Your task to perform on an android device: find which apps use the phone's location Image 0: 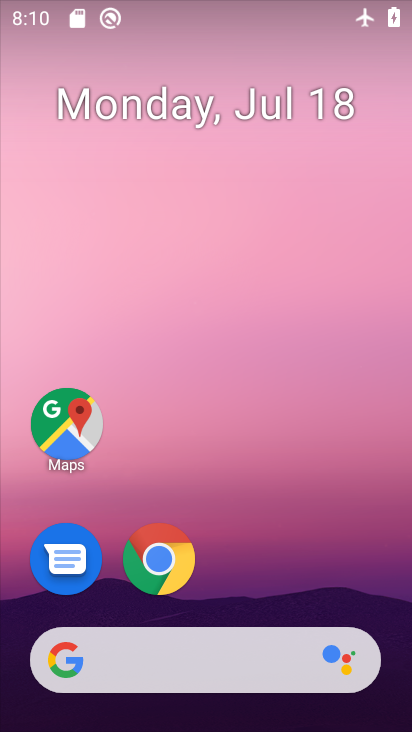
Step 0: drag from (365, 569) to (366, 98)
Your task to perform on an android device: find which apps use the phone's location Image 1: 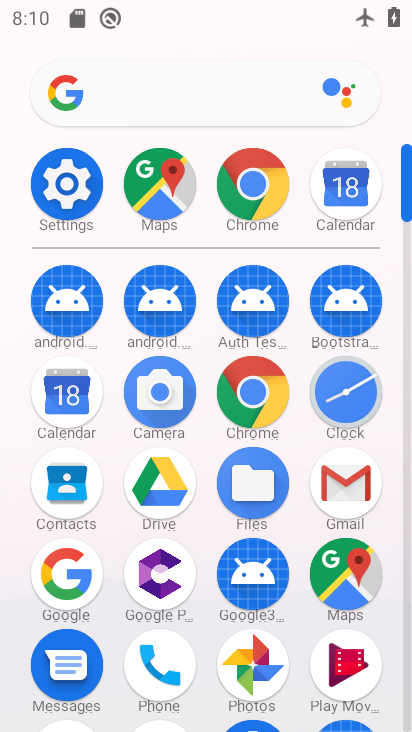
Step 1: click (76, 192)
Your task to perform on an android device: find which apps use the phone's location Image 2: 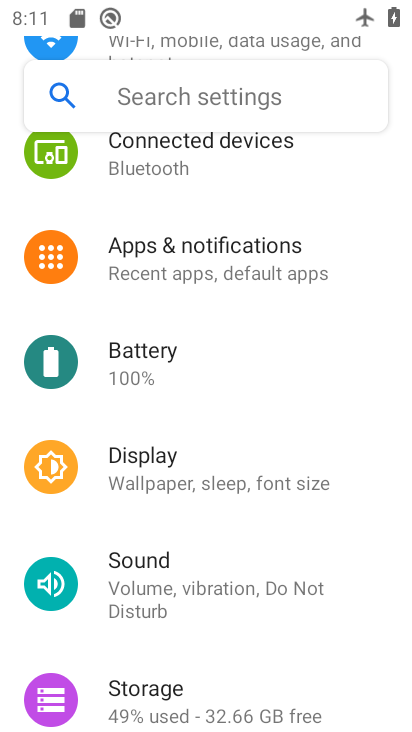
Step 2: drag from (365, 230) to (365, 326)
Your task to perform on an android device: find which apps use the phone's location Image 3: 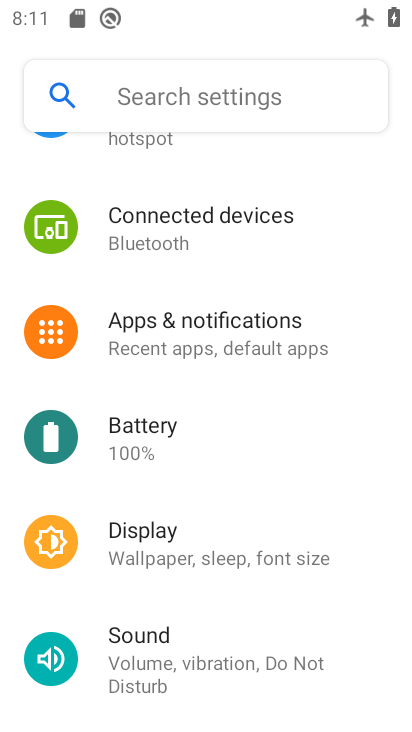
Step 3: drag from (352, 219) to (349, 307)
Your task to perform on an android device: find which apps use the phone's location Image 4: 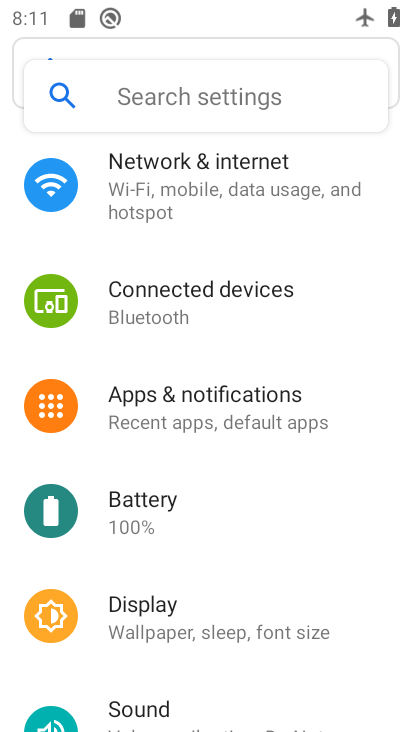
Step 4: drag from (358, 224) to (371, 433)
Your task to perform on an android device: find which apps use the phone's location Image 5: 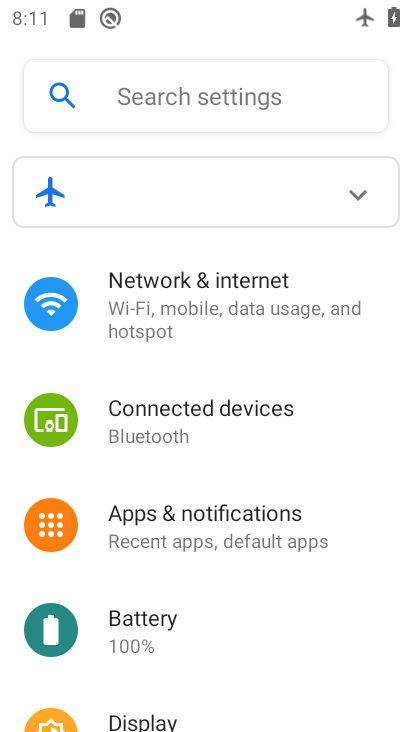
Step 5: drag from (361, 467) to (355, 404)
Your task to perform on an android device: find which apps use the phone's location Image 6: 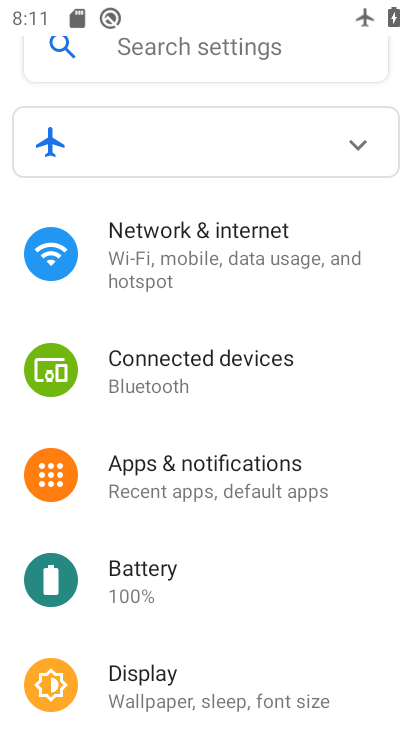
Step 6: drag from (347, 478) to (339, 400)
Your task to perform on an android device: find which apps use the phone's location Image 7: 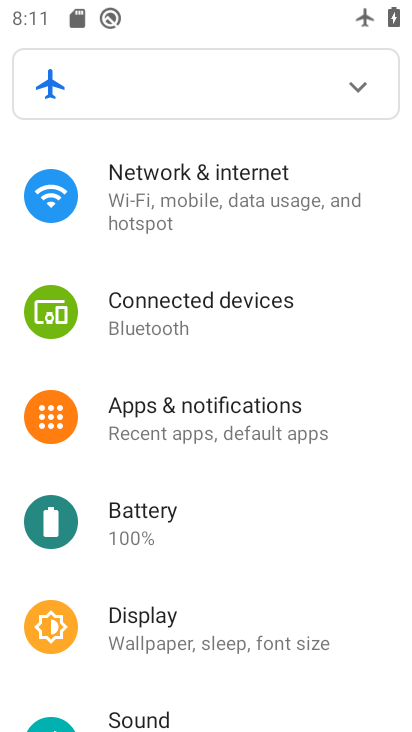
Step 7: drag from (331, 500) to (336, 408)
Your task to perform on an android device: find which apps use the phone's location Image 8: 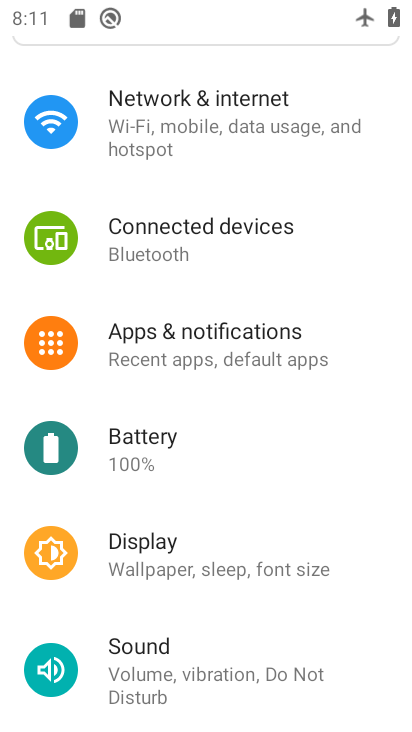
Step 8: drag from (336, 477) to (344, 387)
Your task to perform on an android device: find which apps use the phone's location Image 9: 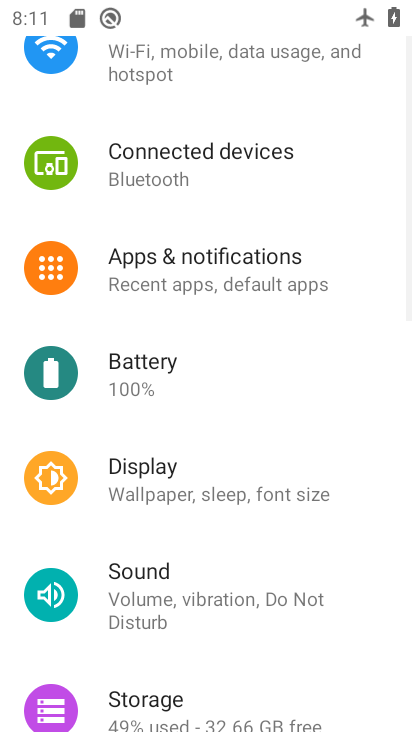
Step 9: drag from (339, 477) to (341, 386)
Your task to perform on an android device: find which apps use the phone's location Image 10: 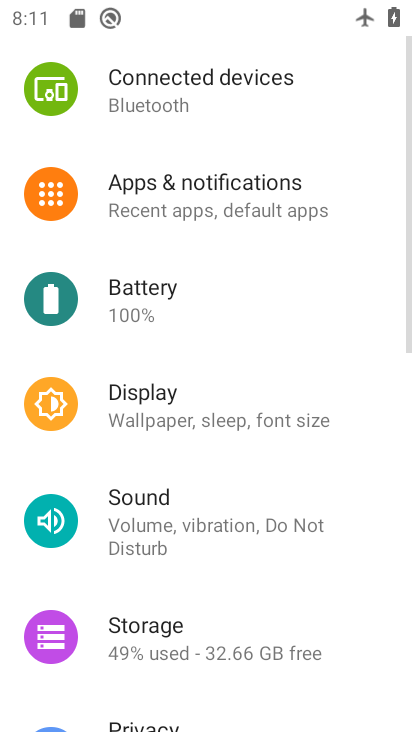
Step 10: drag from (342, 478) to (349, 395)
Your task to perform on an android device: find which apps use the phone's location Image 11: 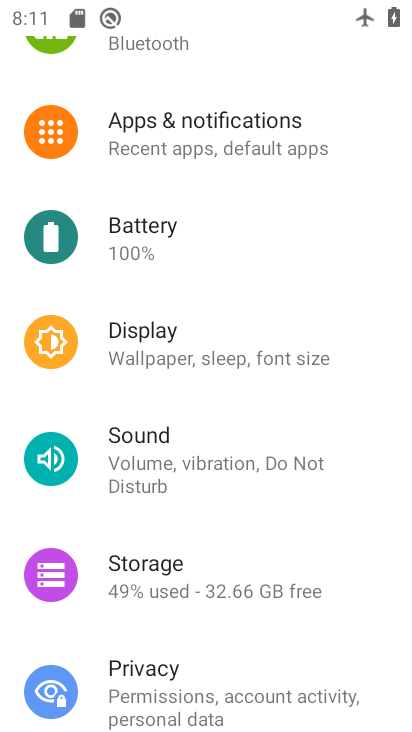
Step 11: drag from (333, 505) to (340, 424)
Your task to perform on an android device: find which apps use the phone's location Image 12: 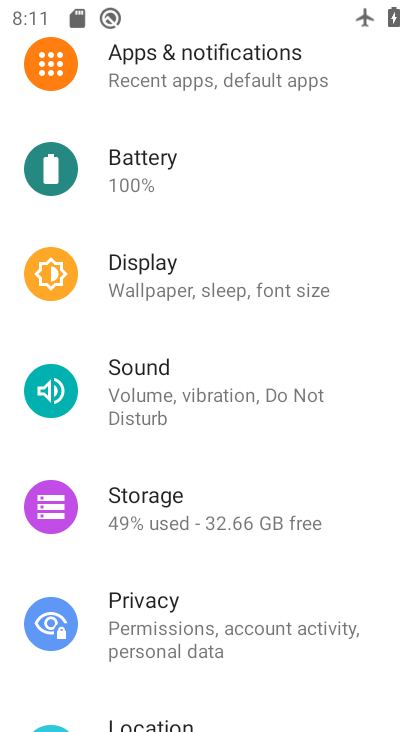
Step 12: drag from (339, 507) to (347, 403)
Your task to perform on an android device: find which apps use the phone's location Image 13: 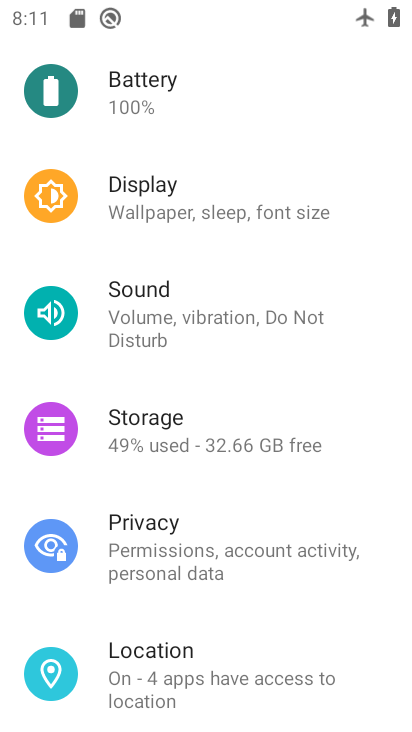
Step 13: drag from (334, 498) to (339, 410)
Your task to perform on an android device: find which apps use the phone's location Image 14: 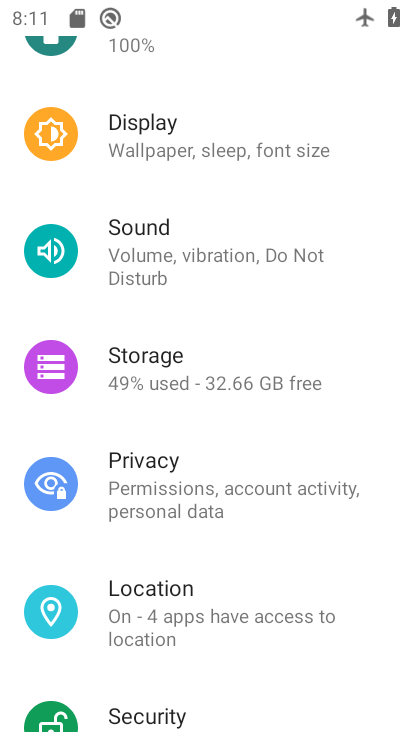
Step 14: drag from (330, 533) to (344, 439)
Your task to perform on an android device: find which apps use the phone's location Image 15: 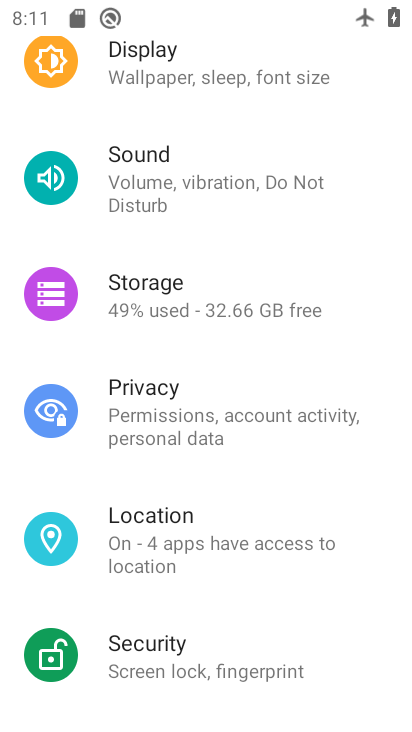
Step 15: drag from (333, 490) to (332, 413)
Your task to perform on an android device: find which apps use the phone's location Image 16: 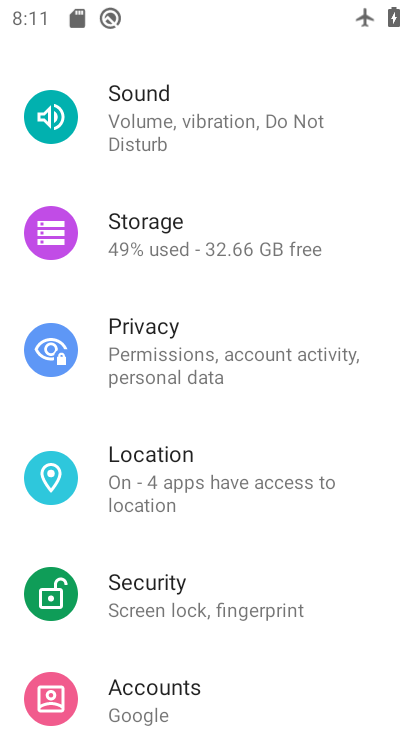
Step 16: drag from (321, 532) to (330, 445)
Your task to perform on an android device: find which apps use the phone's location Image 17: 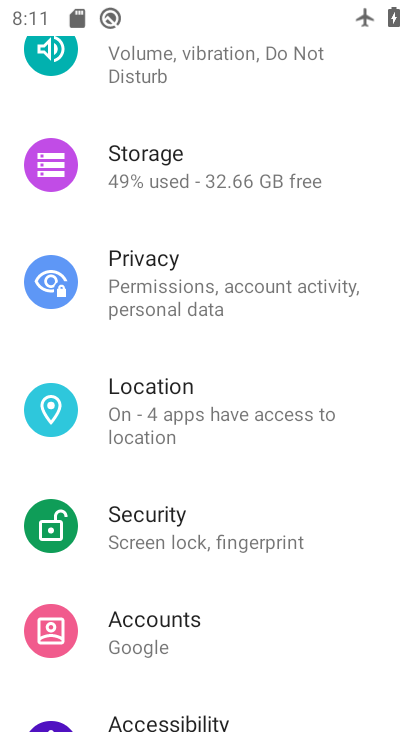
Step 17: click (270, 419)
Your task to perform on an android device: find which apps use the phone's location Image 18: 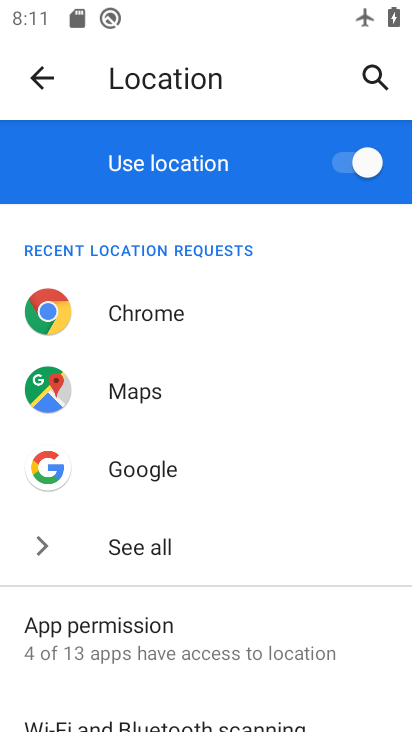
Step 18: drag from (347, 566) to (355, 468)
Your task to perform on an android device: find which apps use the phone's location Image 19: 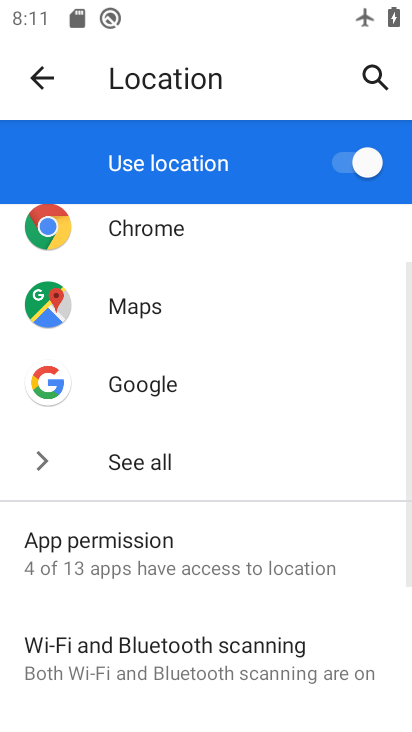
Step 19: drag from (353, 590) to (354, 495)
Your task to perform on an android device: find which apps use the phone's location Image 20: 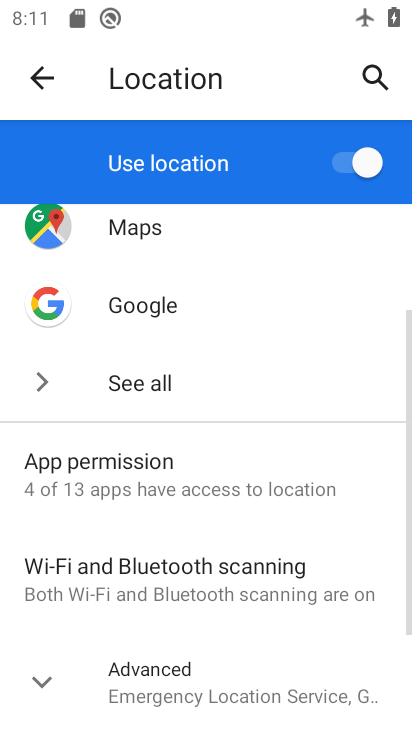
Step 20: click (312, 483)
Your task to perform on an android device: find which apps use the phone's location Image 21: 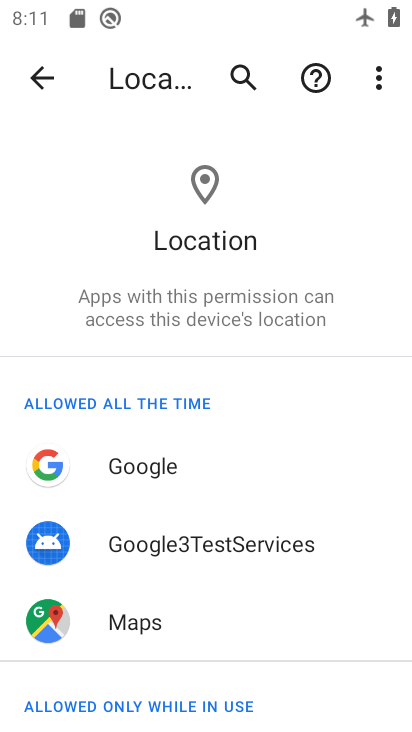
Step 21: drag from (311, 622) to (324, 499)
Your task to perform on an android device: find which apps use the phone's location Image 22: 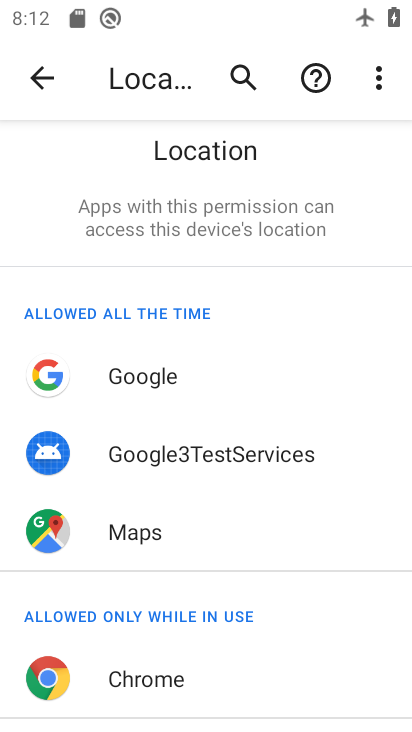
Step 22: drag from (326, 627) to (336, 534)
Your task to perform on an android device: find which apps use the phone's location Image 23: 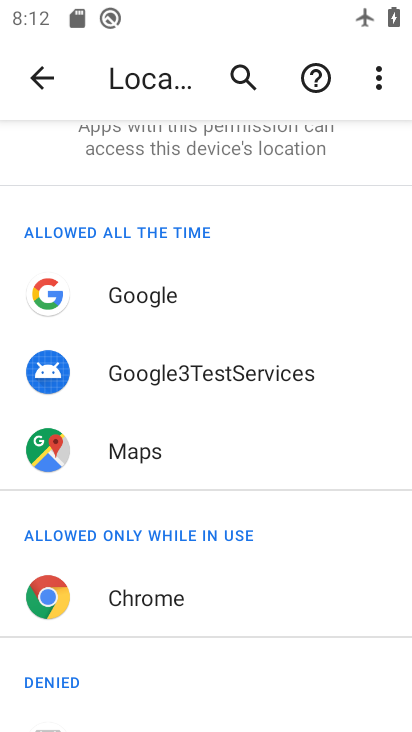
Step 23: drag from (326, 632) to (338, 527)
Your task to perform on an android device: find which apps use the phone's location Image 24: 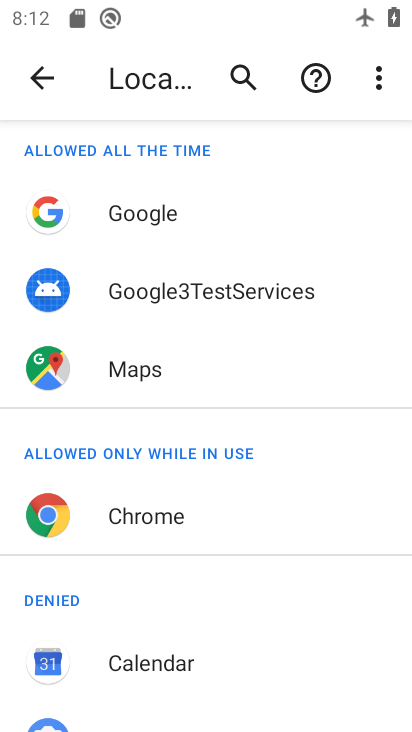
Step 24: drag from (321, 638) to (327, 501)
Your task to perform on an android device: find which apps use the phone's location Image 25: 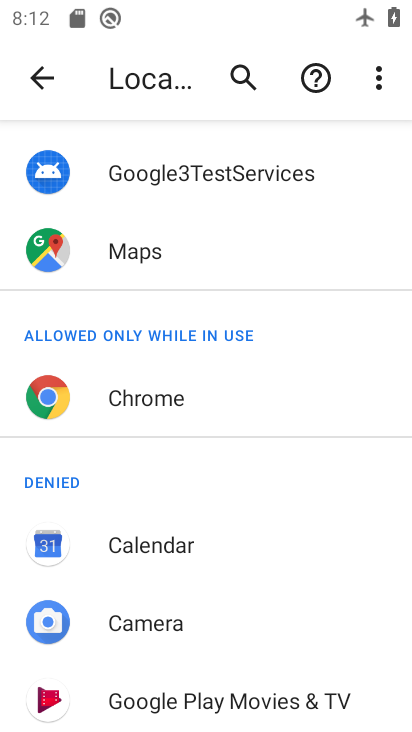
Step 25: drag from (296, 614) to (299, 472)
Your task to perform on an android device: find which apps use the phone's location Image 26: 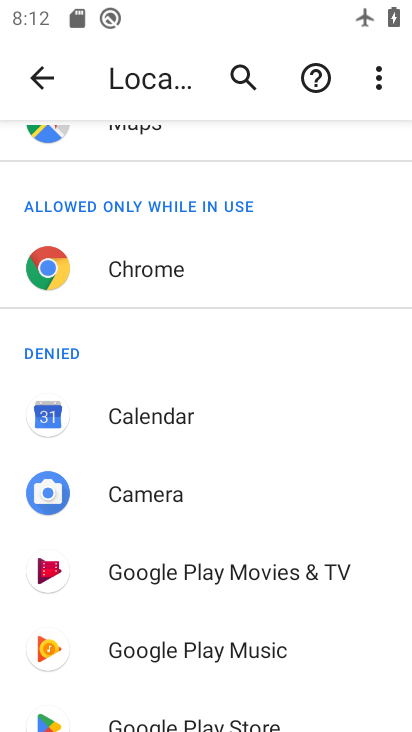
Step 26: drag from (307, 678) to (312, 502)
Your task to perform on an android device: find which apps use the phone's location Image 27: 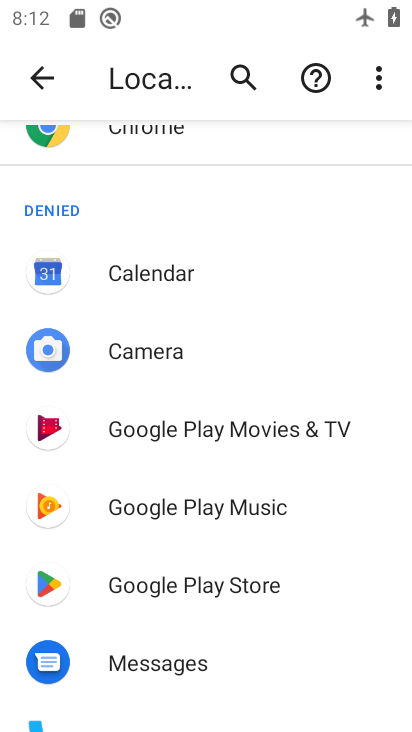
Step 27: drag from (305, 672) to (321, 509)
Your task to perform on an android device: find which apps use the phone's location Image 28: 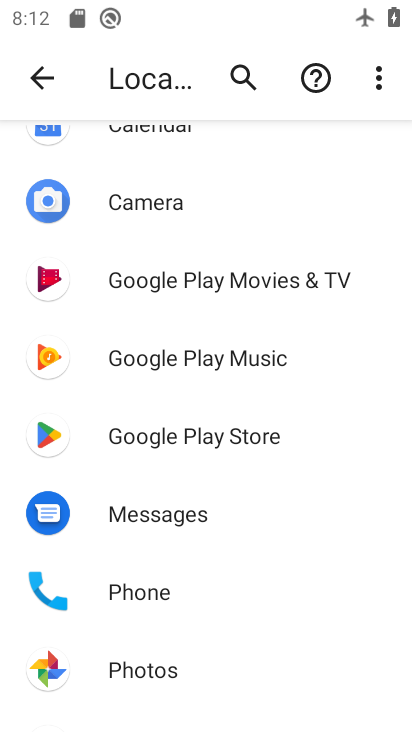
Step 28: click (230, 682)
Your task to perform on an android device: find which apps use the phone's location Image 29: 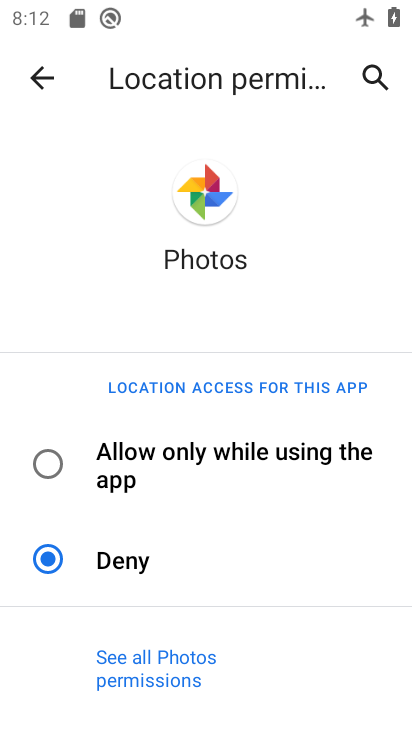
Step 29: click (180, 451)
Your task to perform on an android device: find which apps use the phone's location Image 30: 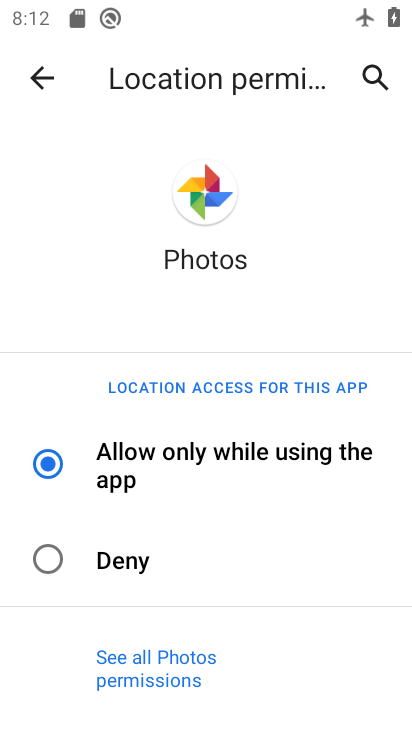
Step 30: task complete